Your task to perform on an android device: change the clock display to digital Image 0: 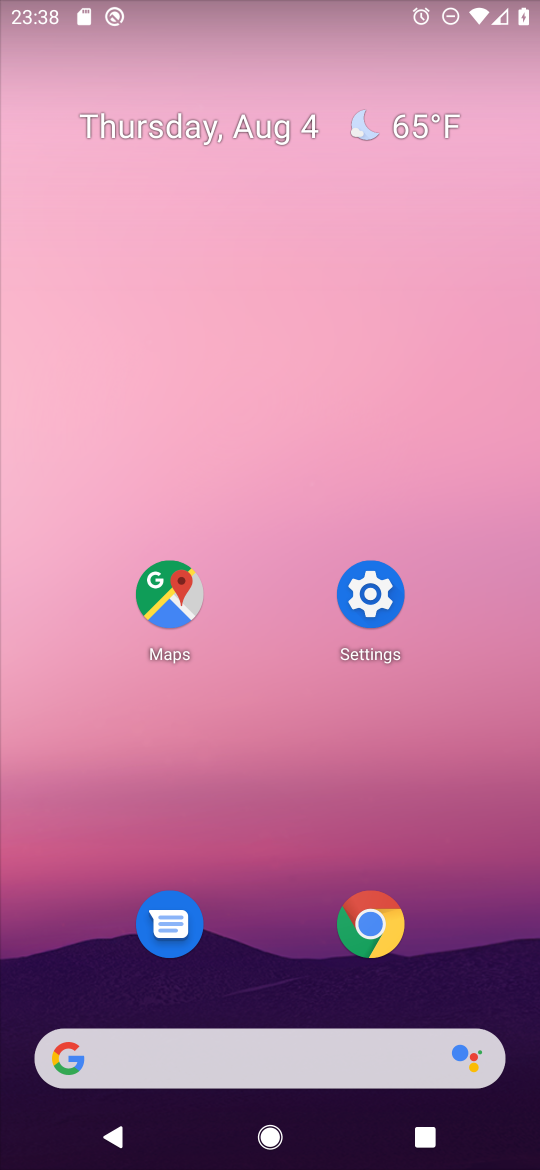
Step 0: drag from (225, 1041) to (537, 75)
Your task to perform on an android device: change the clock display to digital Image 1: 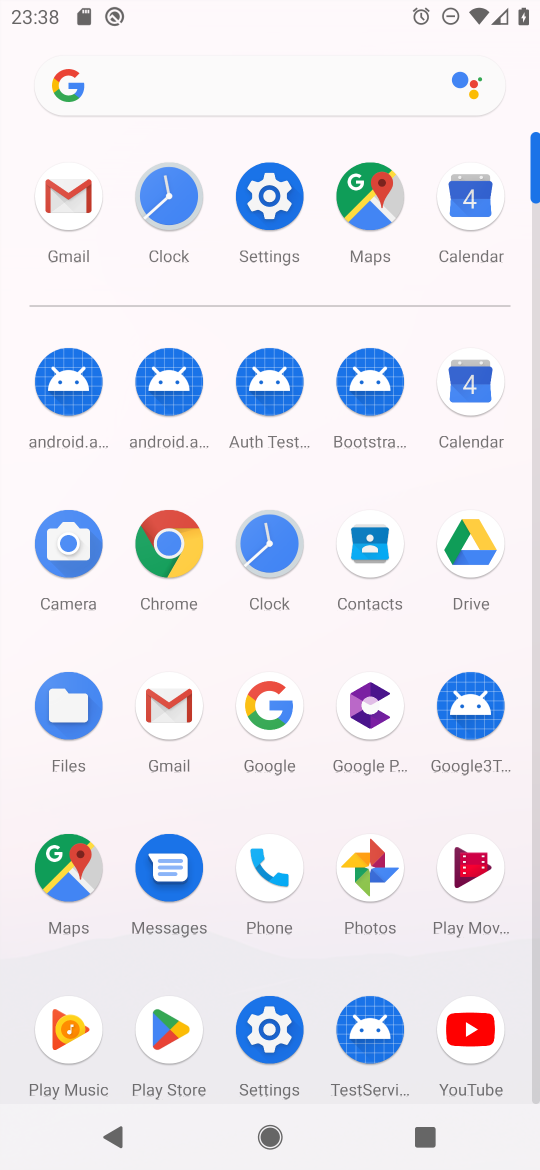
Step 1: click (170, 195)
Your task to perform on an android device: change the clock display to digital Image 2: 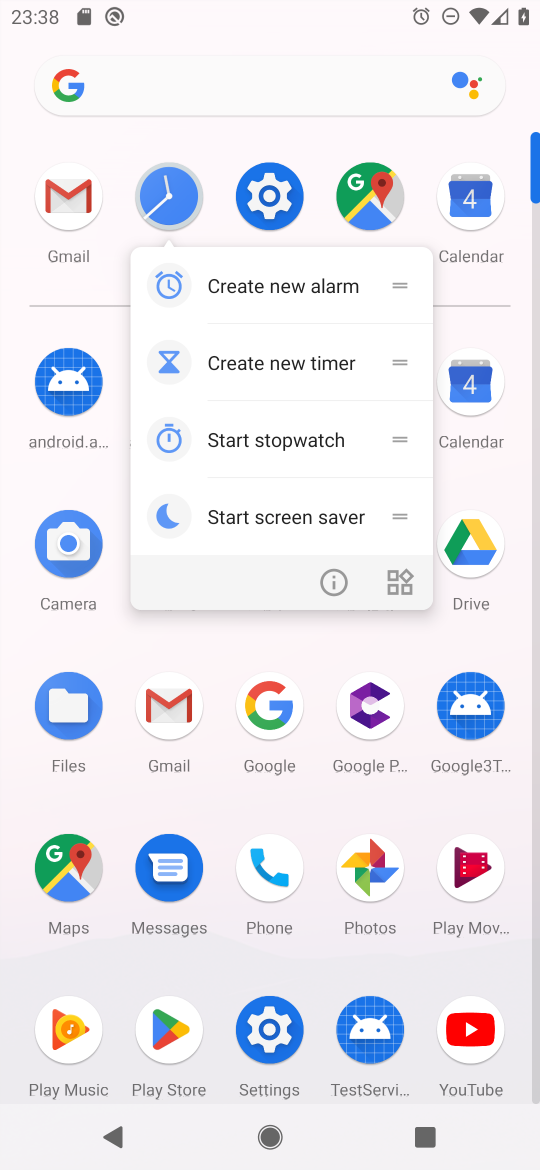
Step 2: click (170, 196)
Your task to perform on an android device: change the clock display to digital Image 3: 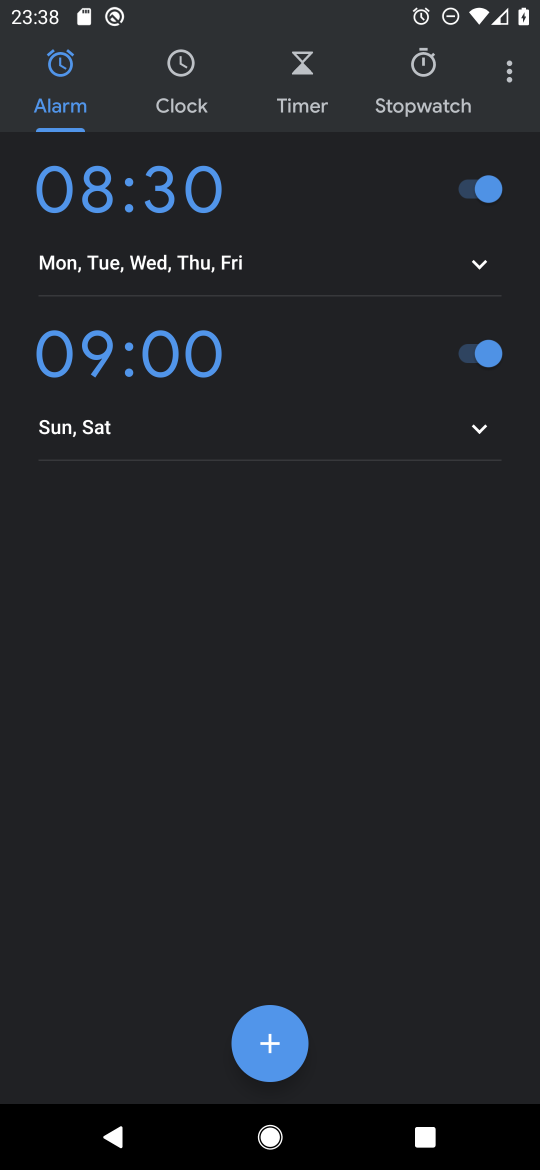
Step 3: click (512, 71)
Your task to perform on an android device: change the clock display to digital Image 4: 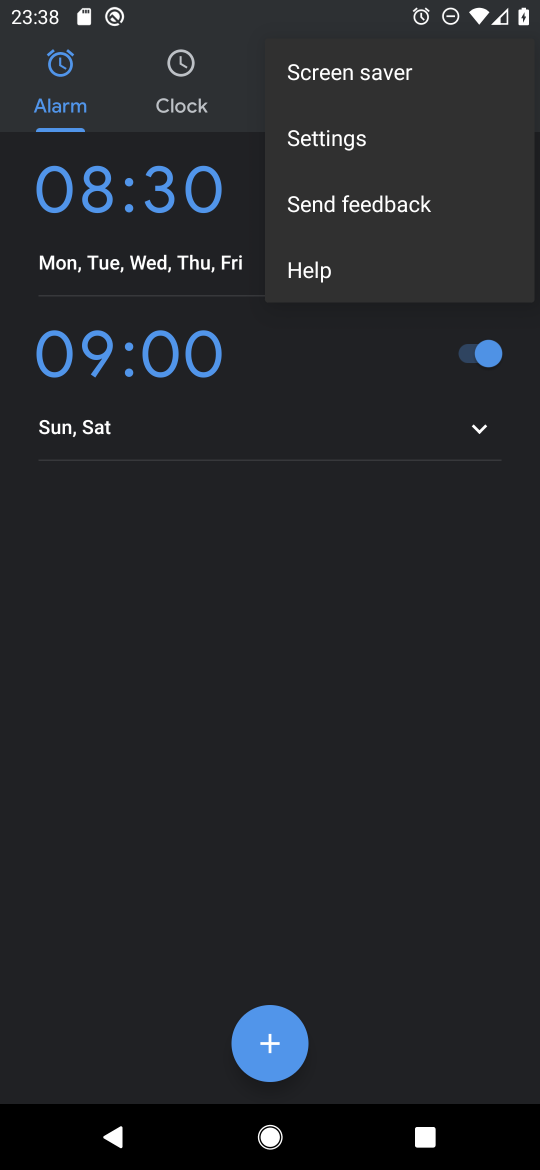
Step 4: click (339, 151)
Your task to perform on an android device: change the clock display to digital Image 5: 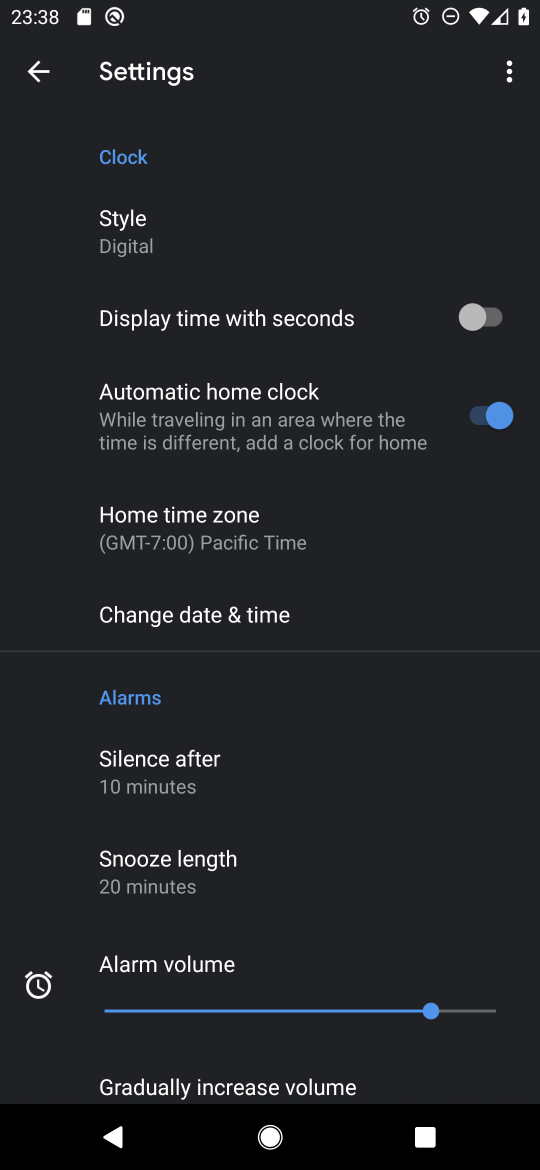
Step 5: task complete